Your task to perform on an android device: turn notification dots on Image 0: 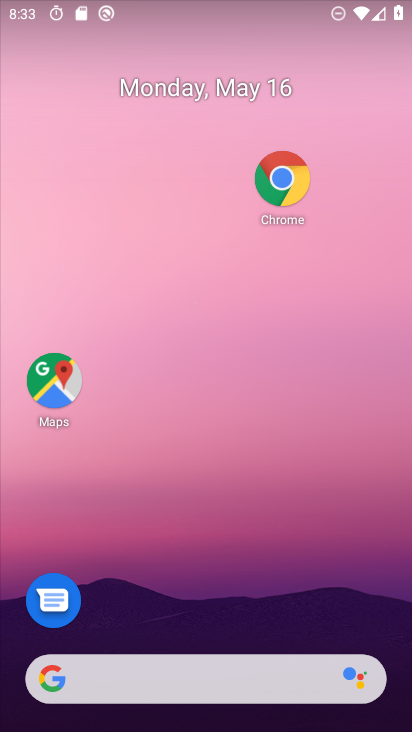
Step 0: drag from (197, 675) to (251, 258)
Your task to perform on an android device: turn notification dots on Image 1: 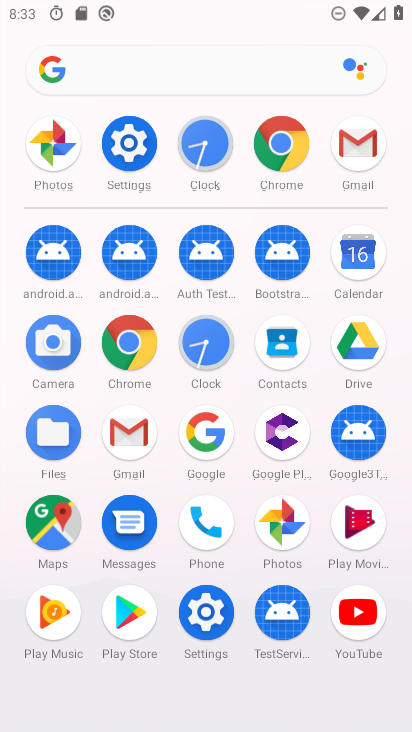
Step 1: click (124, 154)
Your task to perform on an android device: turn notification dots on Image 2: 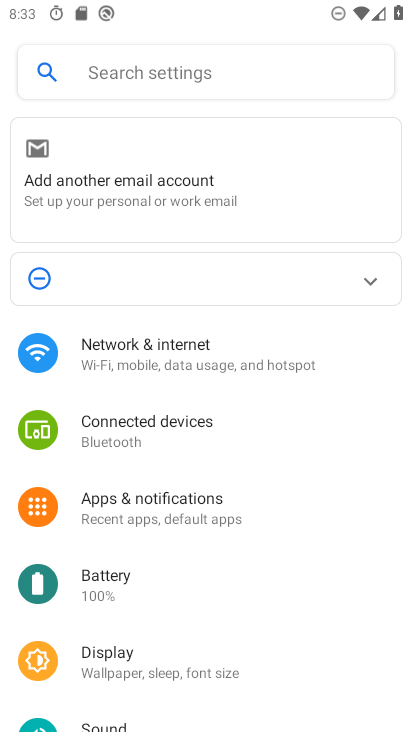
Step 2: click (185, 511)
Your task to perform on an android device: turn notification dots on Image 3: 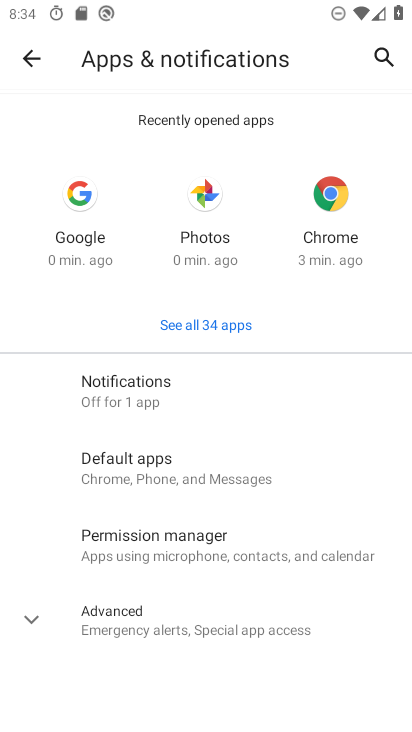
Step 3: click (146, 395)
Your task to perform on an android device: turn notification dots on Image 4: 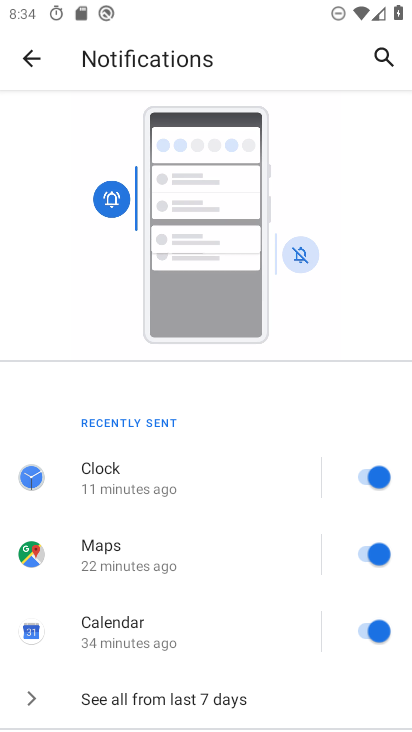
Step 4: drag from (213, 650) to (324, 238)
Your task to perform on an android device: turn notification dots on Image 5: 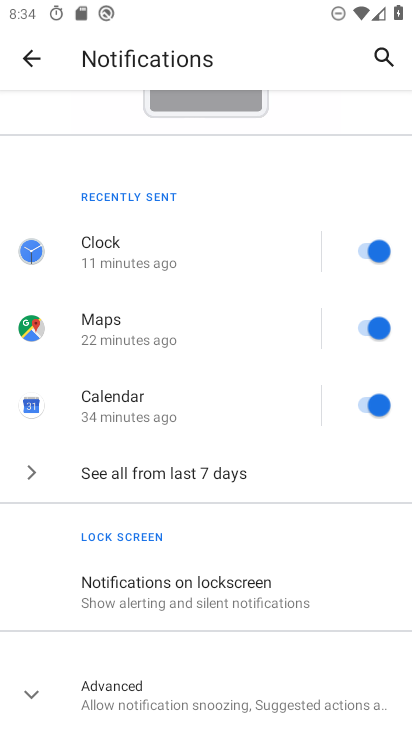
Step 5: click (156, 693)
Your task to perform on an android device: turn notification dots on Image 6: 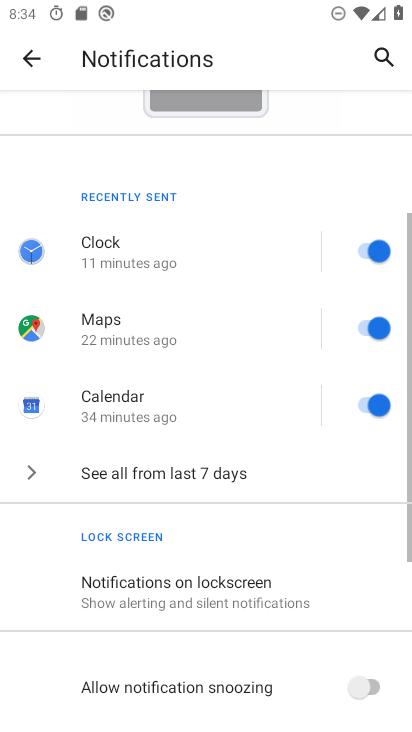
Step 6: task complete